Your task to perform on an android device: check battery use Image 0: 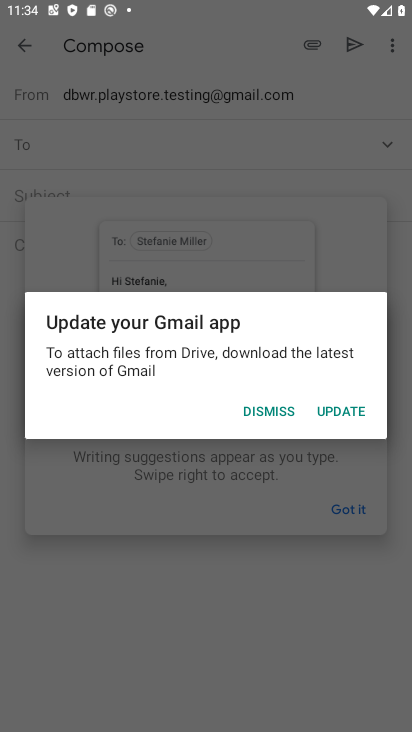
Step 0: press home button
Your task to perform on an android device: check battery use Image 1: 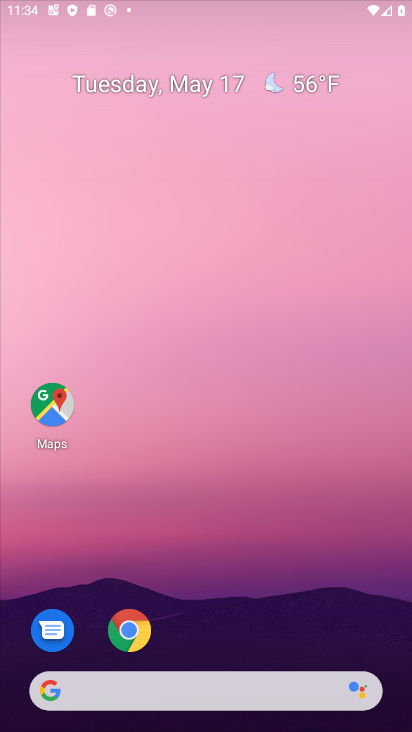
Step 1: drag from (339, 563) to (269, 176)
Your task to perform on an android device: check battery use Image 2: 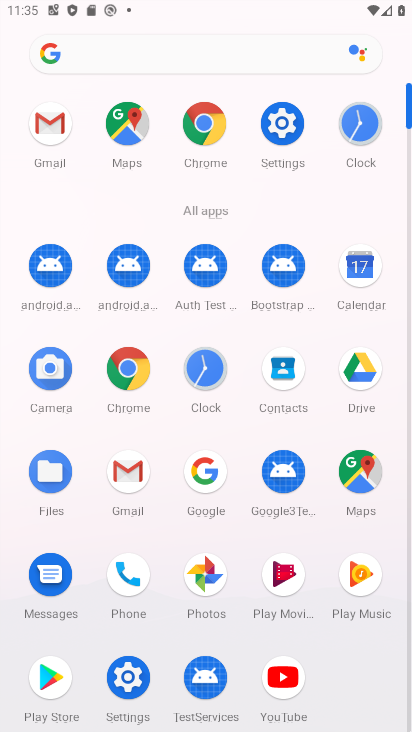
Step 2: click (299, 122)
Your task to perform on an android device: check battery use Image 3: 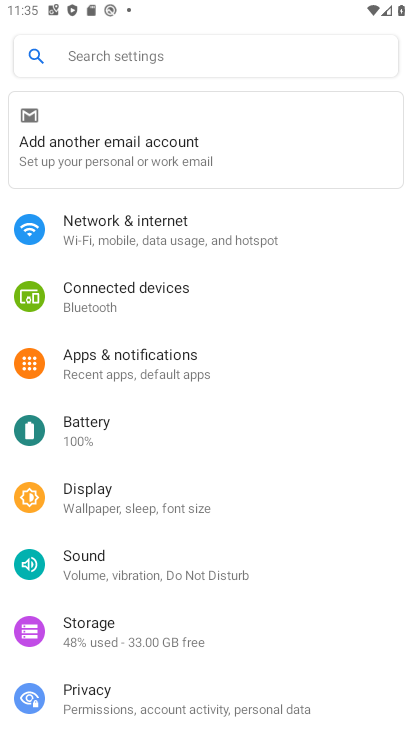
Step 3: click (123, 428)
Your task to perform on an android device: check battery use Image 4: 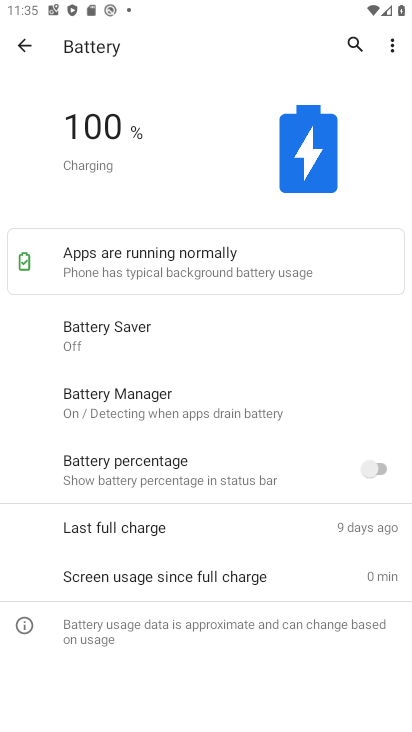
Step 4: task complete